Your task to perform on an android device: See recent photos Image 0: 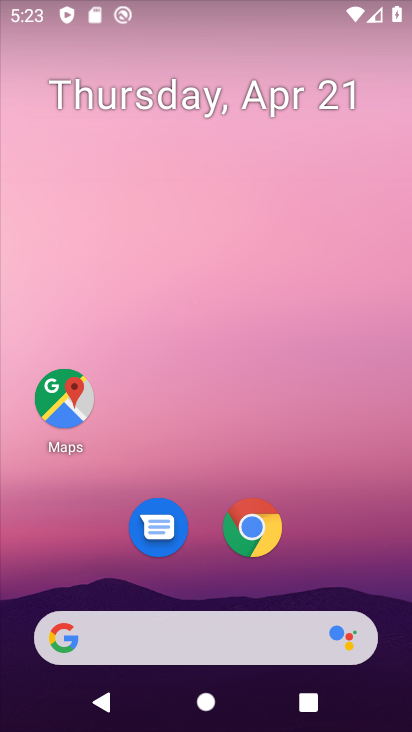
Step 0: drag from (191, 527) to (247, 84)
Your task to perform on an android device: See recent photos Image 1: 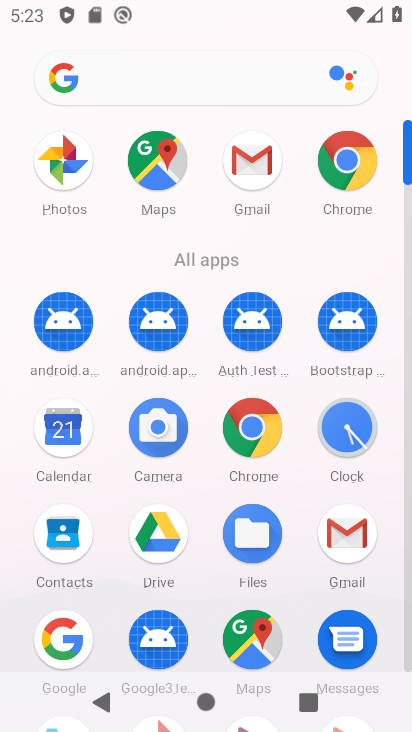
Step 1: drag from (226, 640) to (327, 121)
Your task to perform on an android device: See recent photos Image 2: 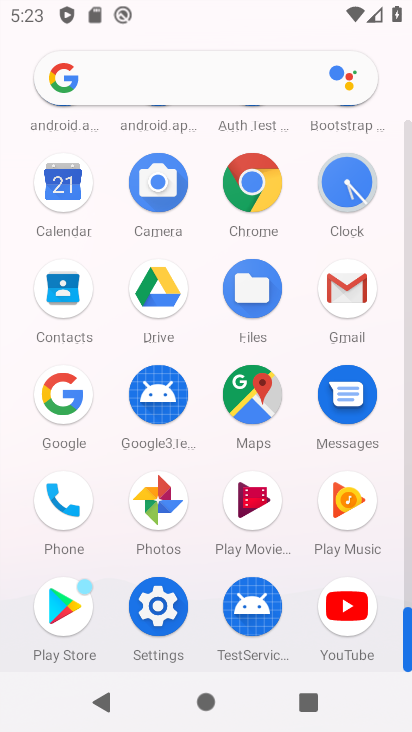
Step 2: click (163, 492)
Your task to perform on an android device: See recent photos Image 3: 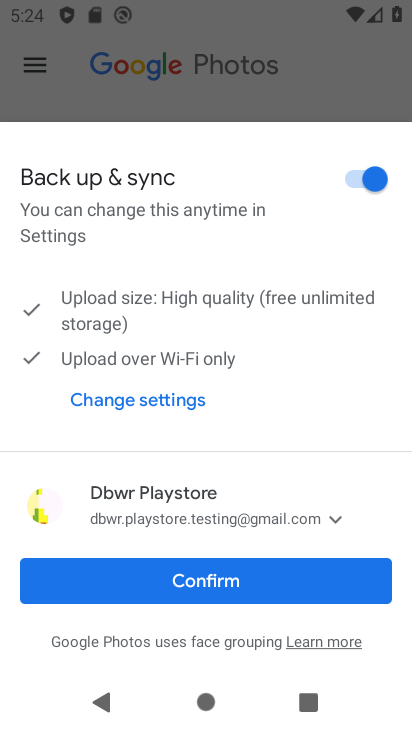
Step 3: click (196, 586)
Your task to perform on an android device: See recent photos Image 4: 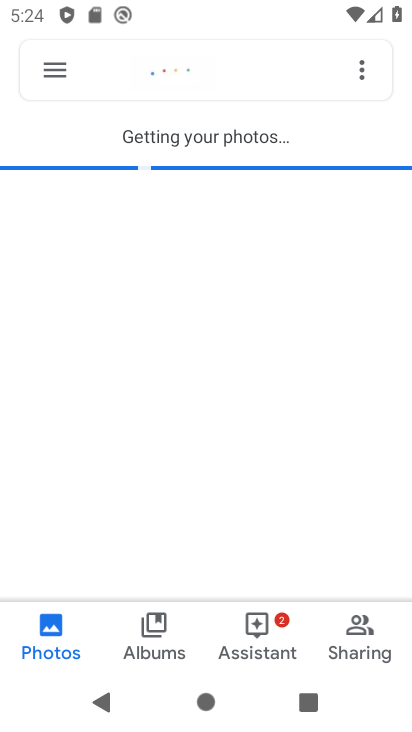
Step 4: click (62, 641)
Your task to perform on an android device: See recent photos Image 5: 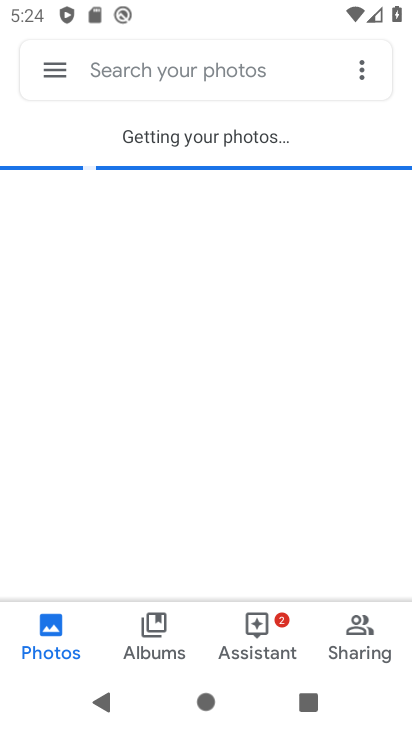
Step 5: task complete